Your task to perform on an android device: Open calendar and show me the second week of next month Image 0: 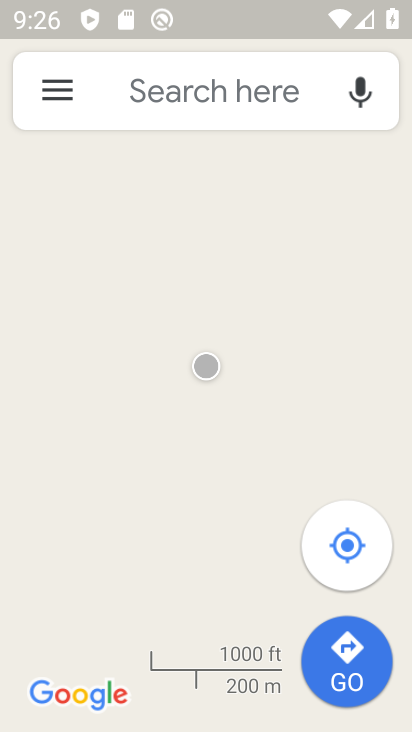
Step 0: press home button
Your task to perform on an android device: Open calendar and show me the second week of next month Image 1: 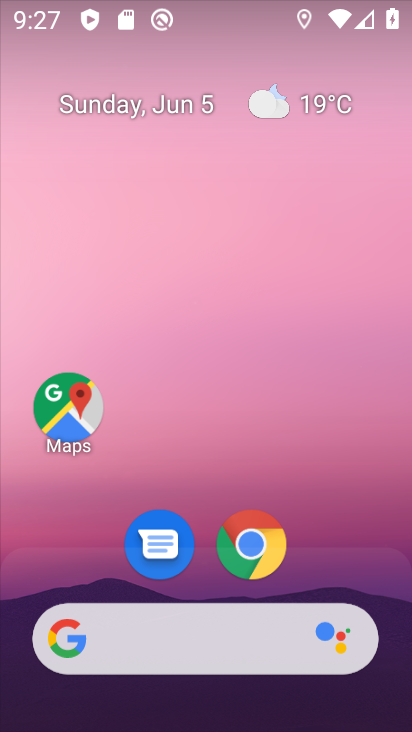
Step 1: drag from (372, 536) to (317, 111)
Your task to perform on an android device: Open calendar and show me the second week of next month Image 2: 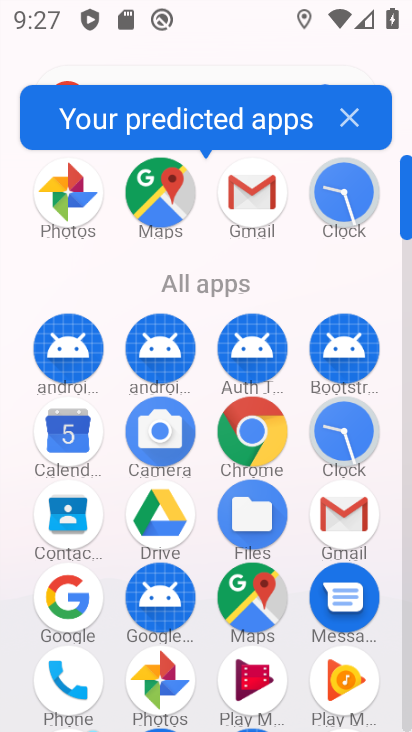
Step 2: click (405, 657)
Your task to perform on an android device: Open calendar and show me the second week of next month Image 3: 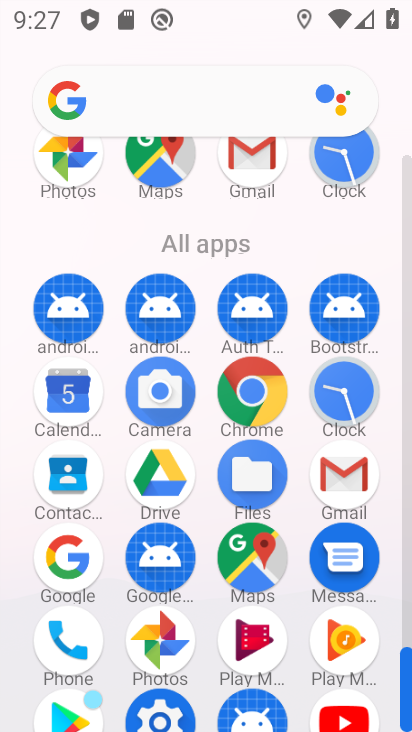
Step 3: click (269, 638)
Your task to perform on an android device: Open calendar and show me the second week of next month Image 4: 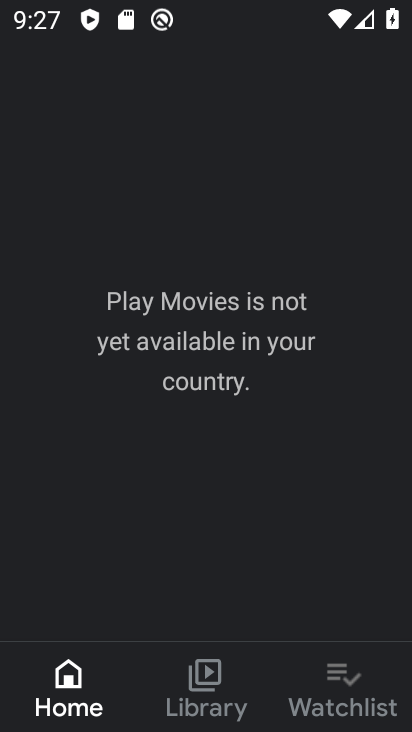
Step 4: click (351, 727)
Your task to perform on an android device: Open calendar and show me the second week of next month Image 5: 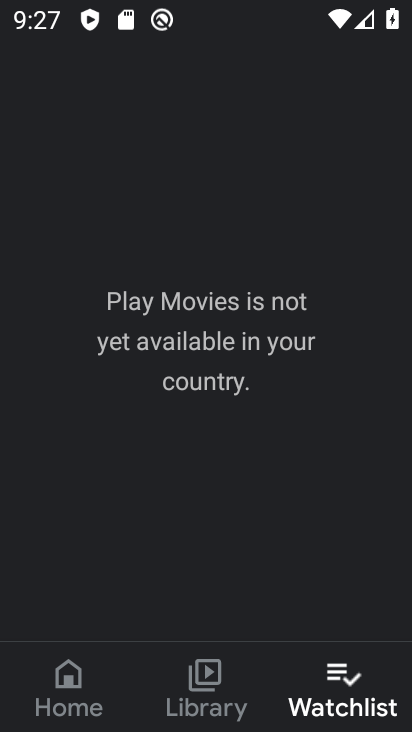
Step 5: press home button
Your task to perform on an android device: Open calendar and show me the second week of next month Image 6: 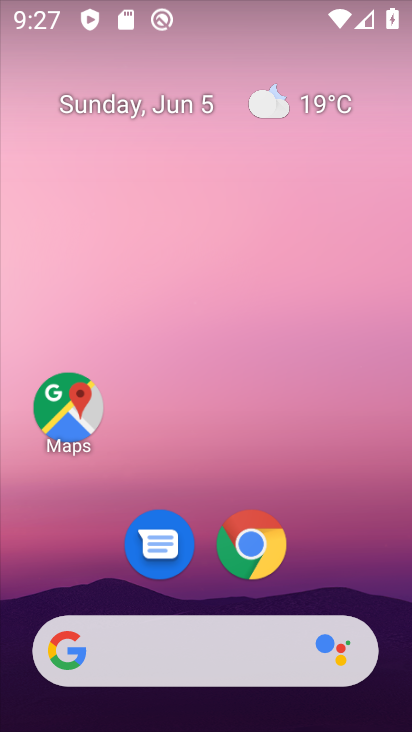
Step 6: drag from (350, 536) to (319, 49)
Your task to perform on an android device: Open calendar and show me the second week of next month Image 7: 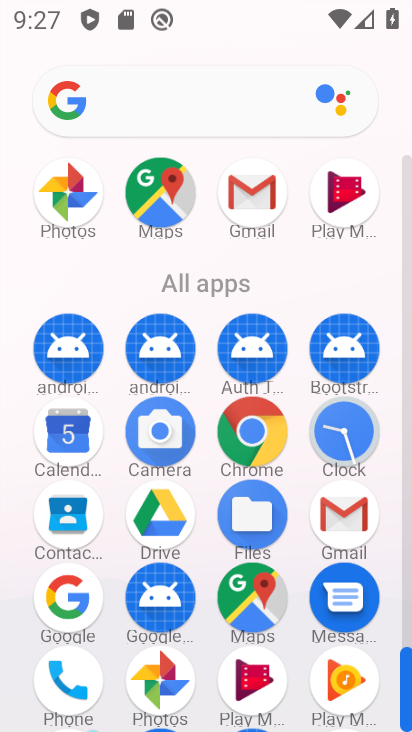
Step 7: drag from (291, 541) to (300, 222)
Your task to perform on an android device: Open calendar and show me the second week of next month Image 8: 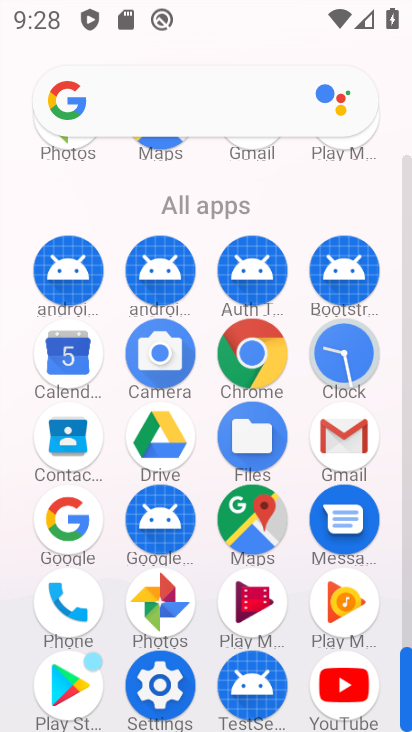
Step 8: click (56, 350)
Your task to perform on an android device: Open calendar and show me the second week of next month Image 9: 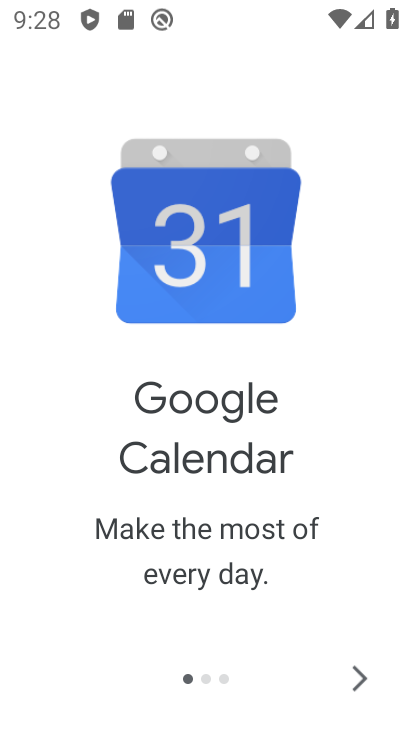
Step 9: click (345, 657)
Your task to perform on an android device: Open calendar and show me the second week of next month Image 10: 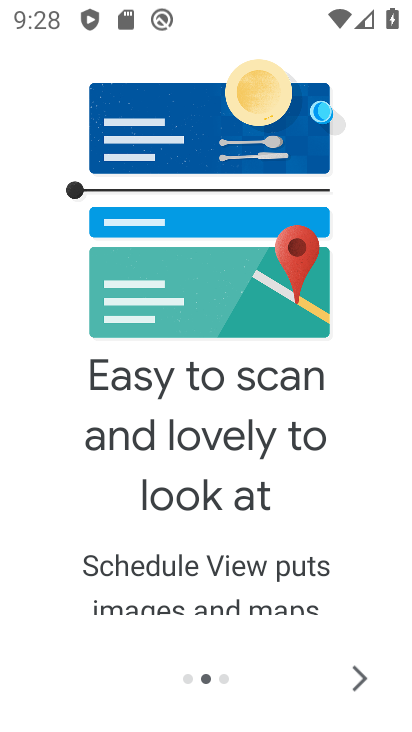
Step 10: click (346, 658)
Your task to perform on an android device: Open calendar and show me the second week of next month Image 11: 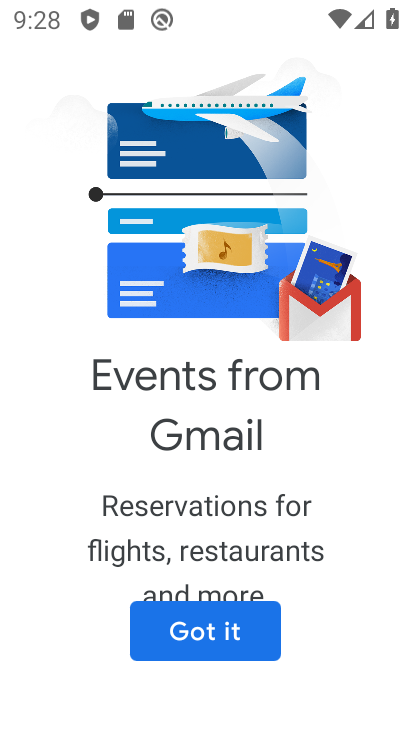
Step 11: click (276, 612)
Your task to perform on an android device: Open calendar and show me the second week of next month Image 12: 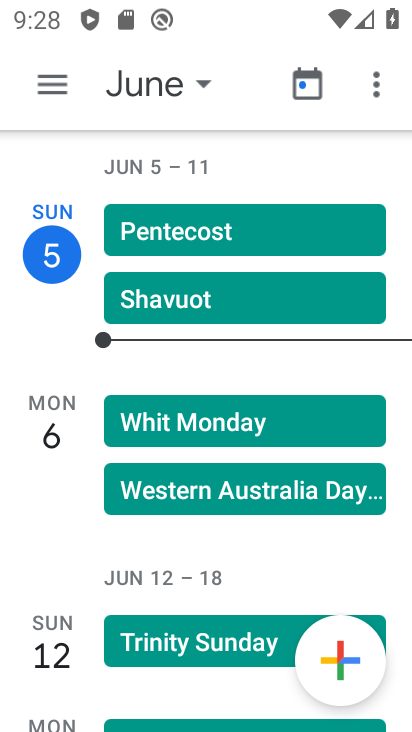
Step 12: click (209, 78)
Your task to perform on an android device: Open calendar and show me the second week of next month Image 13: 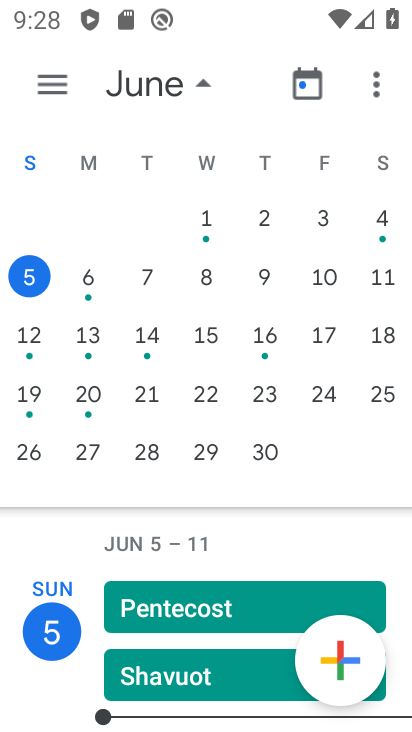
Step 13: drag from (336, 294) to (3, 351)
Your task to perform on an android device: Open calendar and show me the second week of next month Image 14: 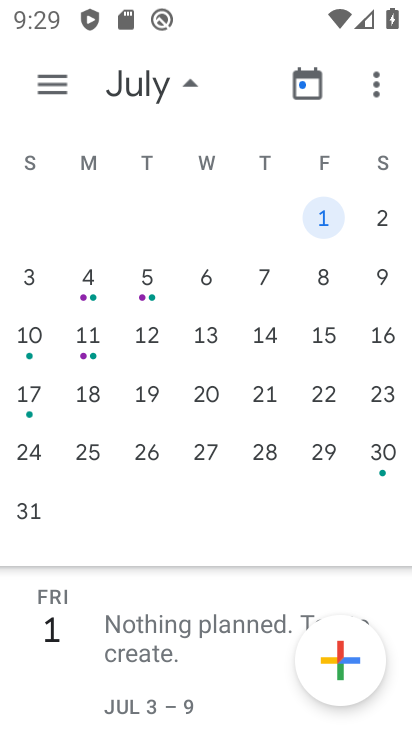
Step 14: click (307, 287)
Your task to perform on an android device: Open calendar and show me the second week of next month Image 15: 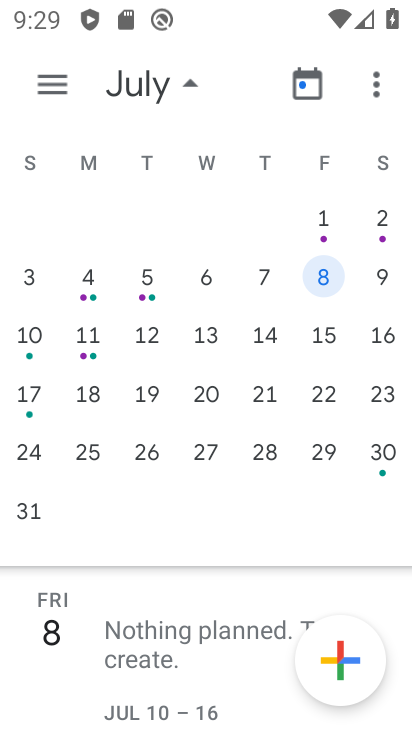
Step 15: task complete